Your task to perform on an android device: install app "Google Find My Device" Image 0: 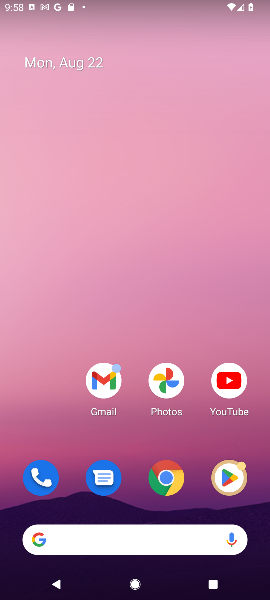
Step 0: click (222, 490)
Your task to perform on an android device: install app "Google Find My Device" Image 1: 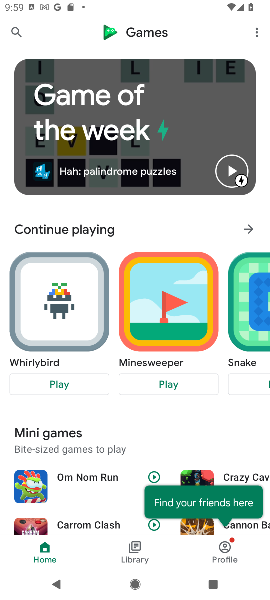
Step 1: click (14, 33)
Your task to perform on an android device: install app "Google Find My Device" Image 2: 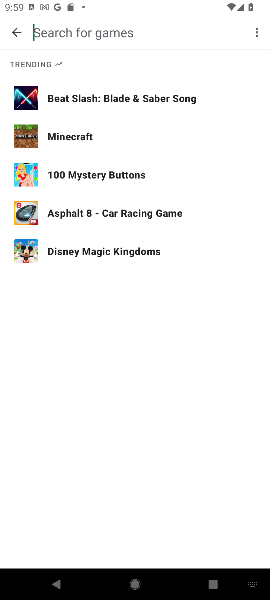
Step 2: press home button
Your task to perform on an android device: install app "Google Find My Device" Image 3: 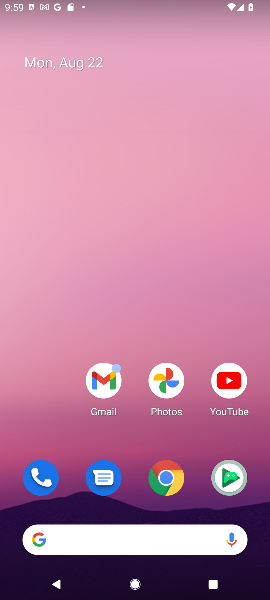
Step 3: drag from (137, 501) to (153, 28)
Your task to perform on an android device: install app "Google Find My Device" Image 4: 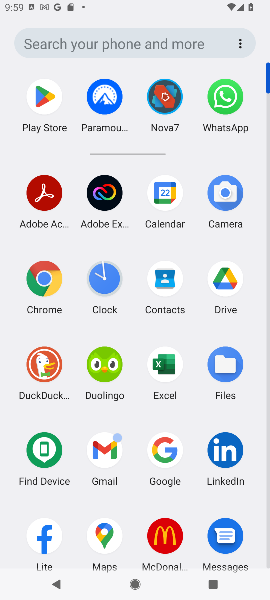
Step 4: click (48, 111)
Your task to perform on an android device: install app "Google Find My Device" Image 5: 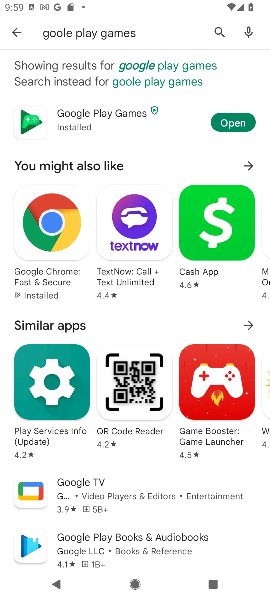
Step 5: click (219, 41)
Your task to perform on an android device: install app "Google Find My Device" Image 6: 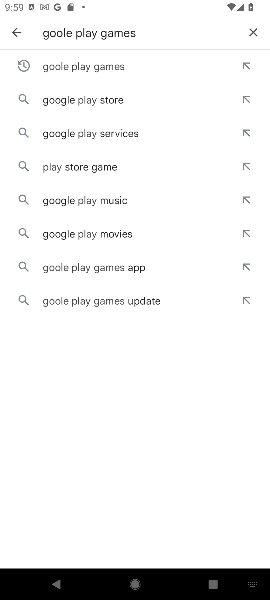
Step 6: click (248, 33)
Your task to perform on an android device: install app "Google Find My Device" Image 7: 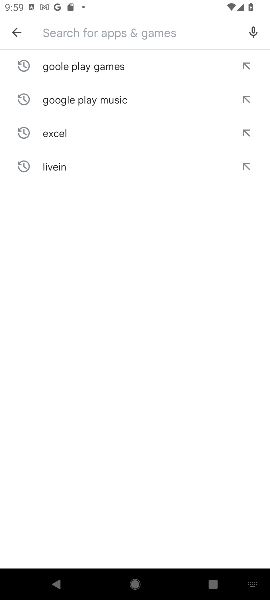
Step 7: type "find my dives"
Your task to perform on an android device: install app "Google Find My Device" Image 8: 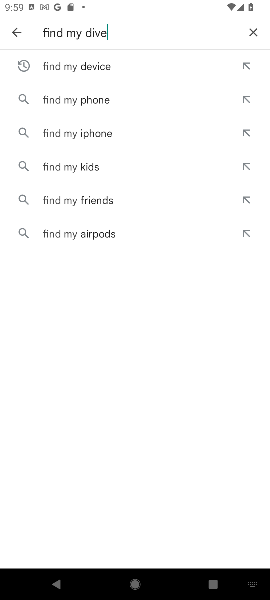
Step 8: type "\"
Your task to perform on an android device: install app "Google Find My Device" Image 9: 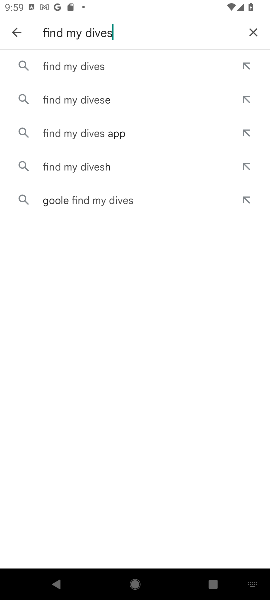
Step 9: click (75, 66)
Your task to perform on an android device: install app "Google Find My Device" Image 10: 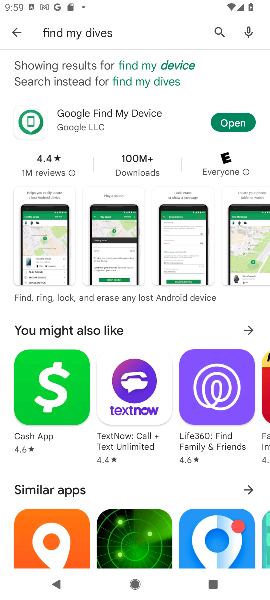
Step 10: click (237, 121)
Your task to perform on an android device: install app "Google Find My Device" Image 11: 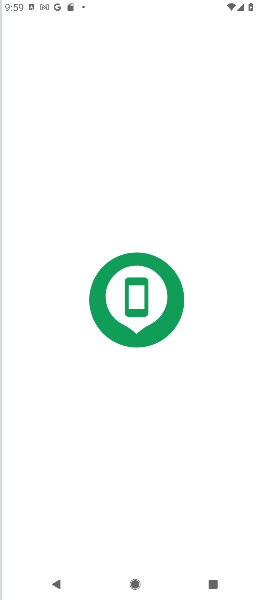
Step 11: task complete